Your task to perform on an android device: Open the stopwatch Image 0: 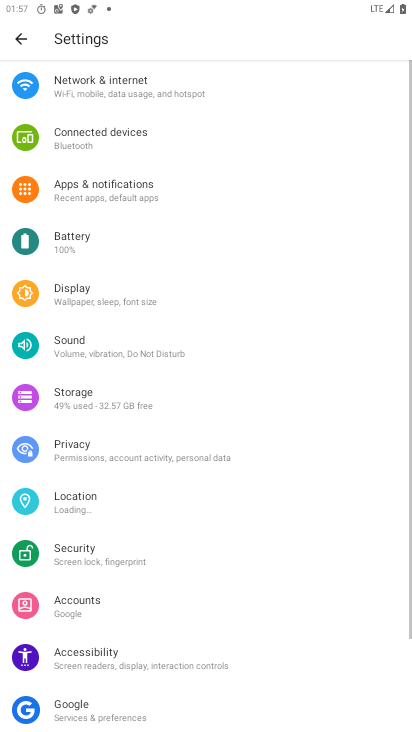
Step 0: press home button
Your task to perform on an android device: Open the stopwatch Image 1: 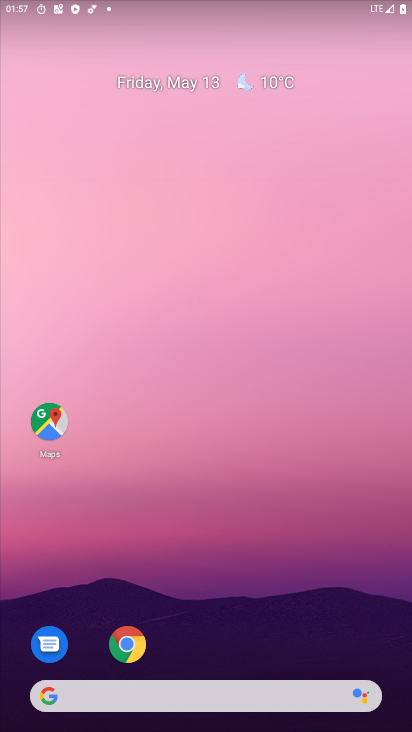
Step 1: drag from (209, 685) to (235, 45)
Your task to perform on an android device: Open the stopwatch Image 2: 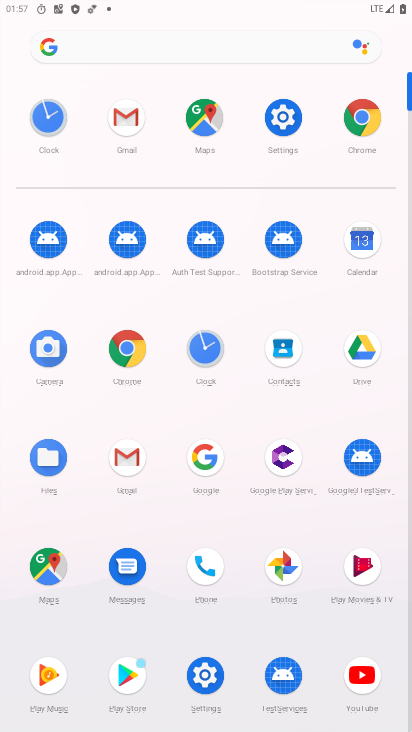
Step 2: click (193, 348)
Your task to perform on an android device: Open the stopwatch Image 3: 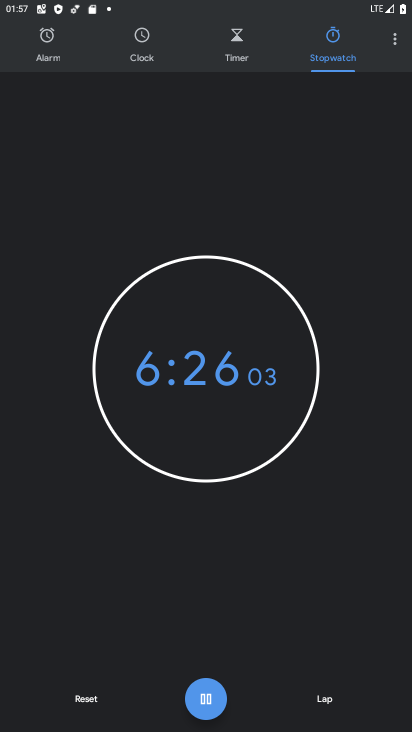
Step 3: task complete